Your task to perform on an android device: open a bookmark in the chrome app Image 0: 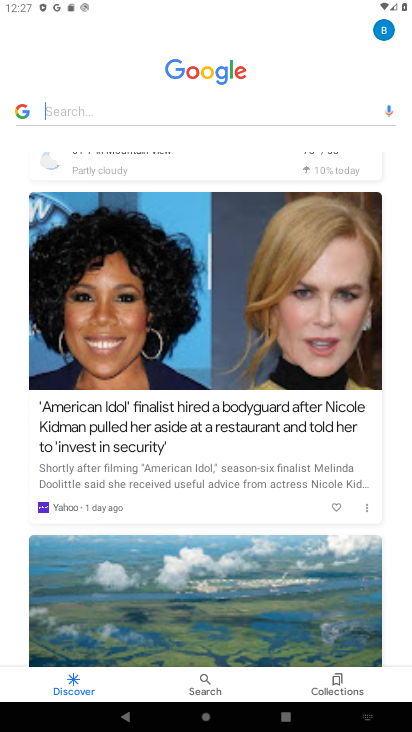
Step 0: drag from (146, 9) to (237, 629)
Your task to perform on an android device: open a bookmark in the chrome app Image 1: 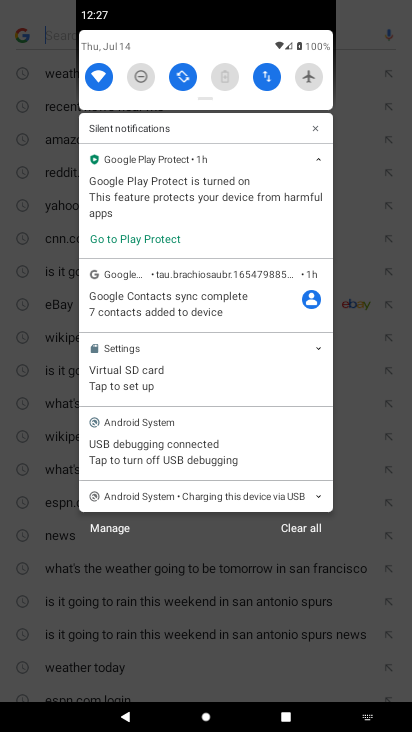
Step 1: click (311, 81)
Your task to perform on an android device: open a bookmark in the chrome app Image 2: 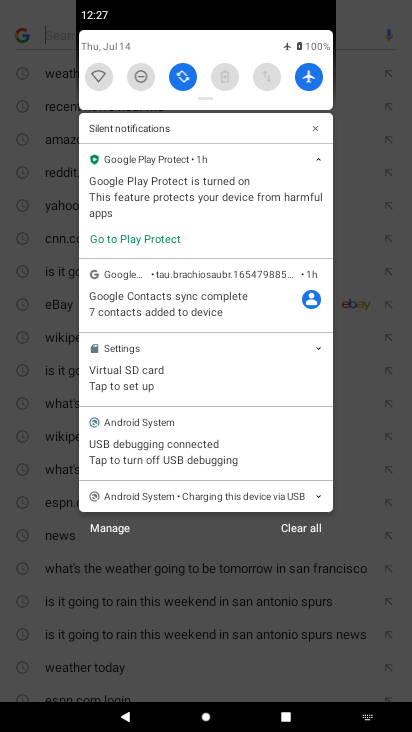
Step 2: task complete